Your task to perform on an android device: Open internet settings Image 0: 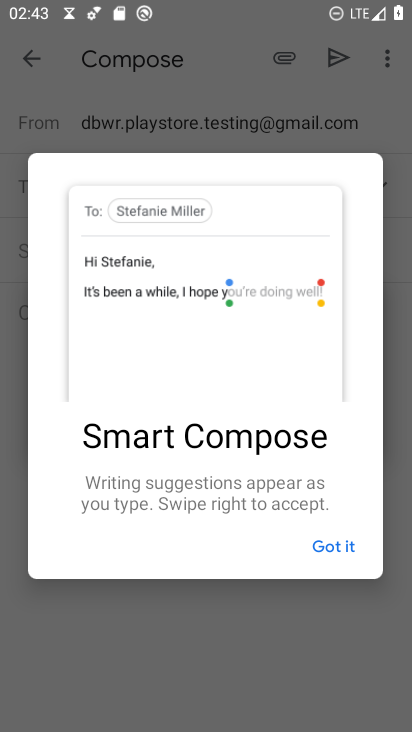
Step 0: press home button
Your task to perform on an android device: Open internet settings Image 1: 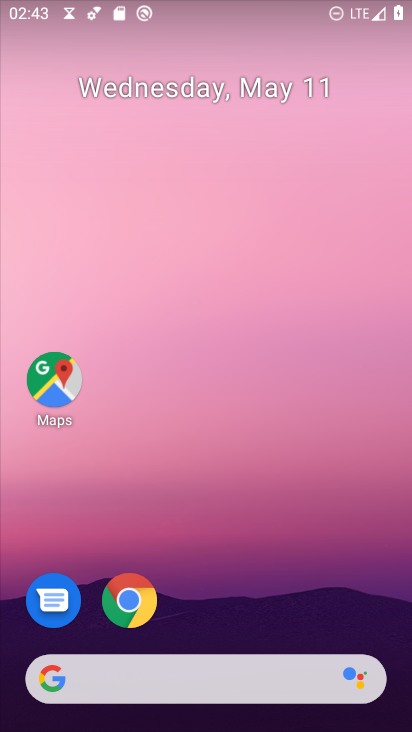
Step 1: drag from (235, 598) to (268, 259)
Your task to perform on an android device: Open internet settings Image 2: 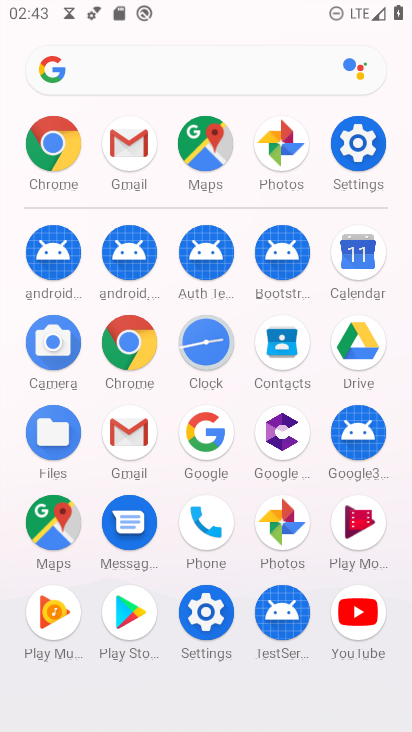
Step 2: click (209, 611)
Your task to perform on an android device: Open internet settings Image 3: 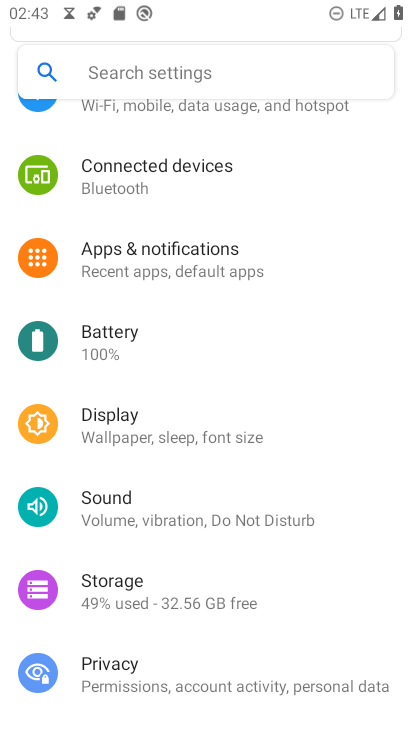
Step 3: drag from (166, 138) to (199, 551)
Your task to perform on an android device: Open internet settings Image 4: 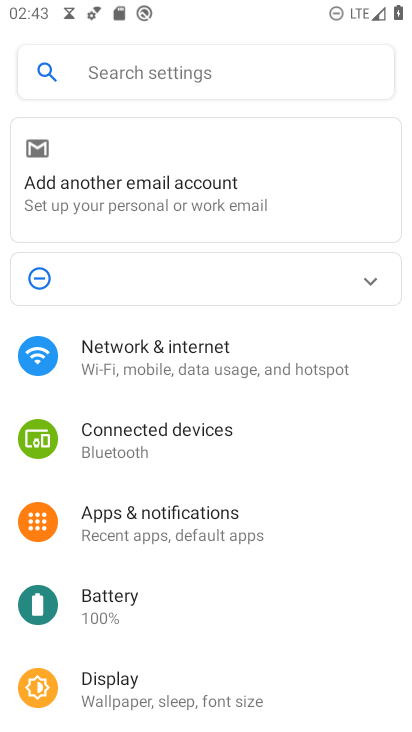
Step 4: click (178, 366)
Your task to perform on an android device: Open internet settings Image 5: 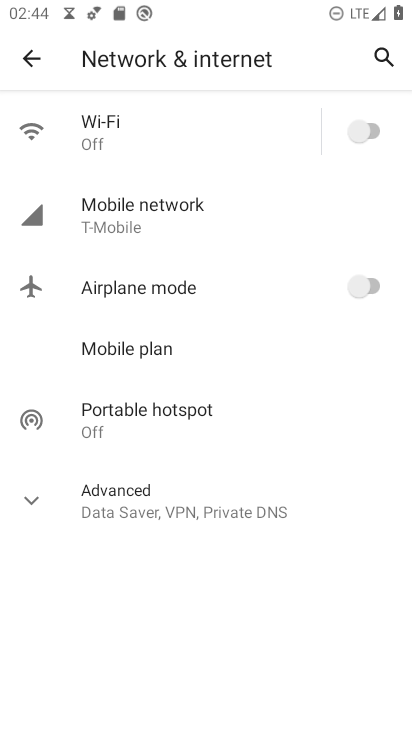
Step 5: task complete